Your task to perform on an android device: change keyboard looks Image 0: 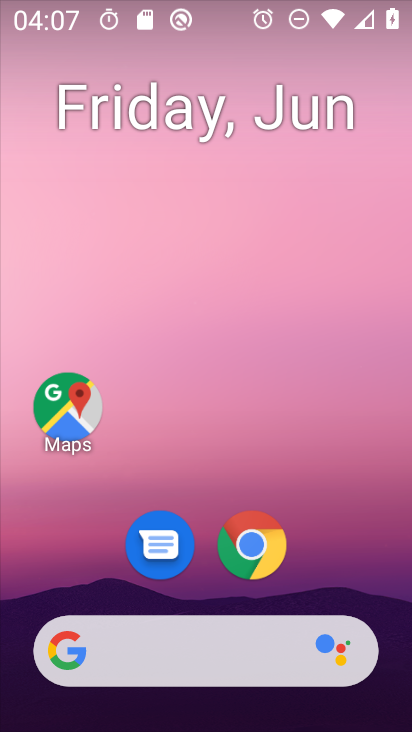
Step 0: drag from (305, 599) to (291, 10)
Your task to perform on an android device: change keyboard looks Image 1: 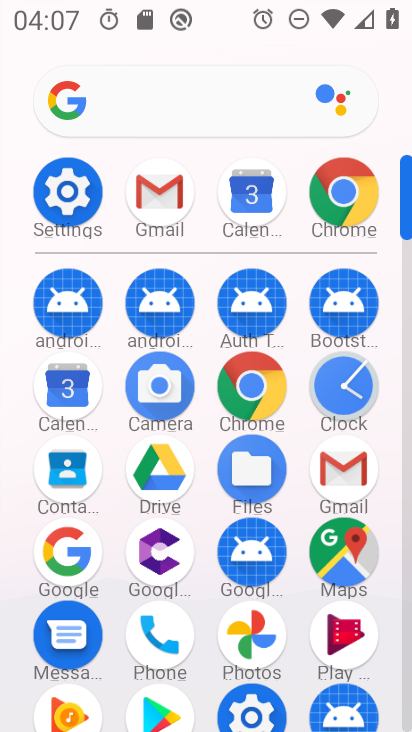
Step 1: click (79, 197)
Your task to perform on an android device: change keyboard looks Image 2: 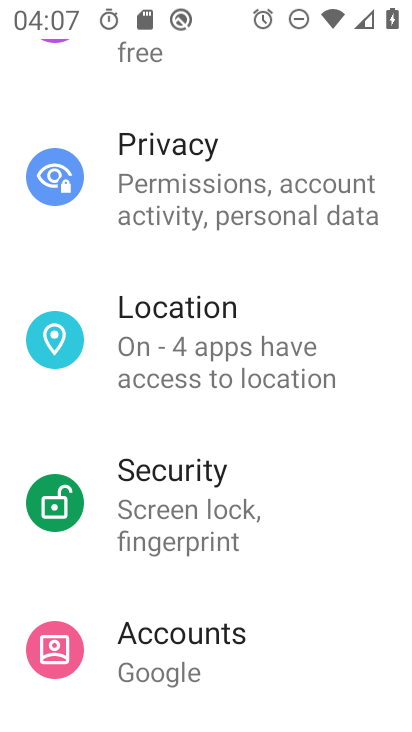
Step 2: drag from (283, 579) to (317, 72)
Your task to perform on an android device: change keyboard looks Image 3: 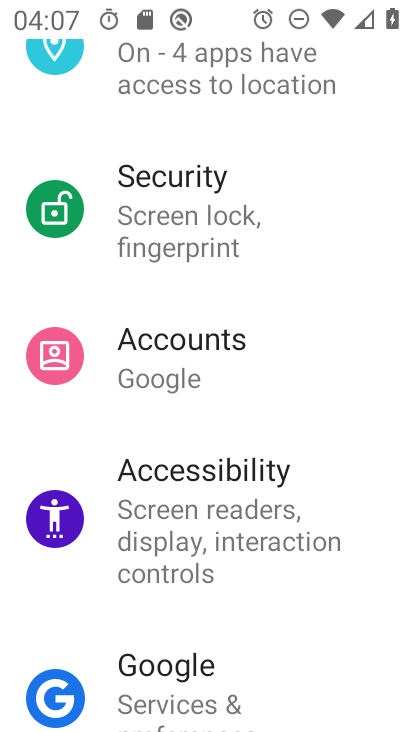
Step 3: drag from (339, 533) to (348, 18)
Your task to perform on an android device: change keyboard looks Image 4: 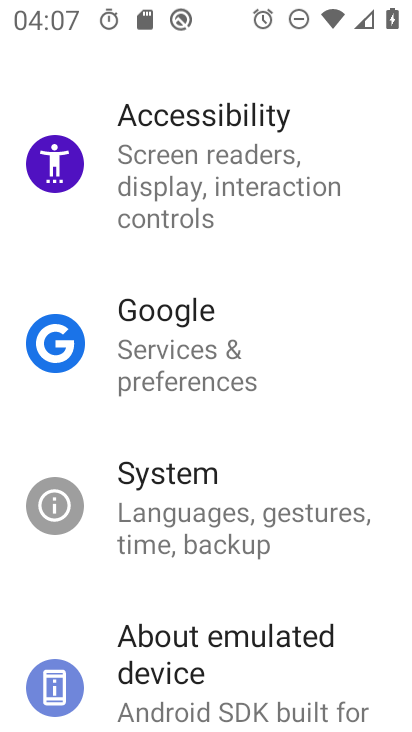
Step 4: click (223, 543)
Your task to perform on an android device: change keyboard looks Image 5: 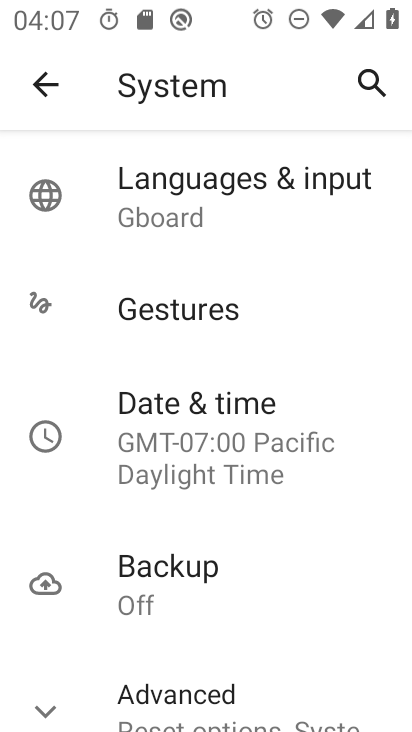
Step 5: click (113, 207)
Your task to perform on an android device: change keyboard looks Image 6: 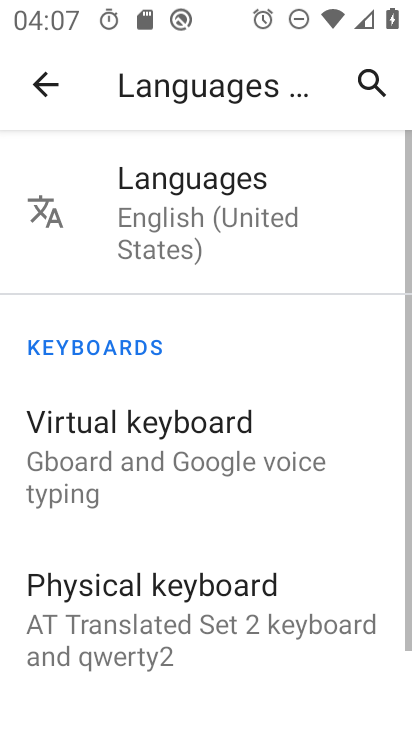
Step 6: click (139, 469)
Your task to perform on an android device: change keyboard looks Image 7: 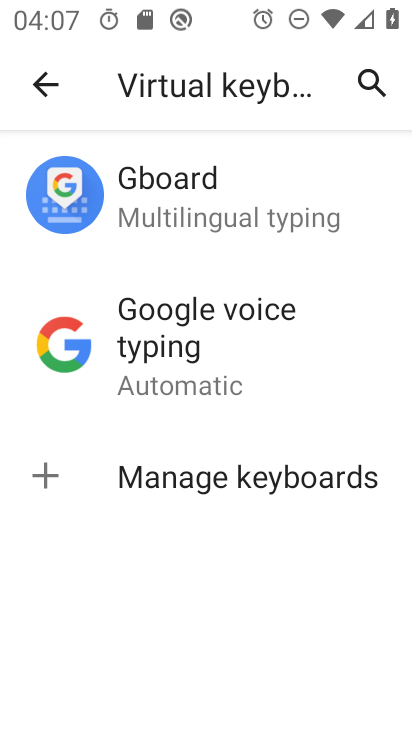
Step 7: click (179, 212)
Your task to perform on an android device: change keyboard looks Image 8: 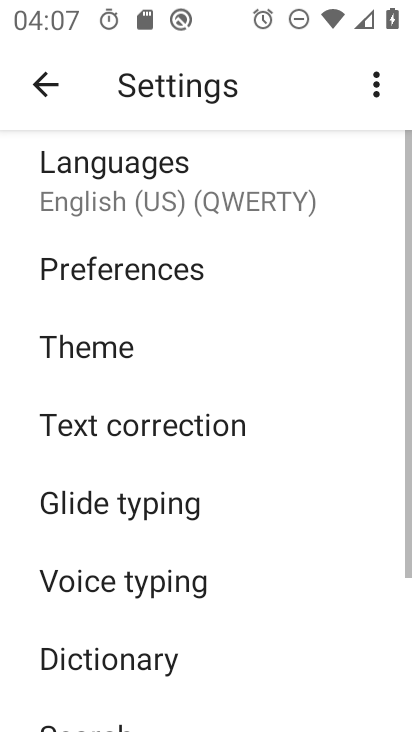
Step 8: click (123, 385)
Your task to perform on an android device: change keyboard looks Image 9: 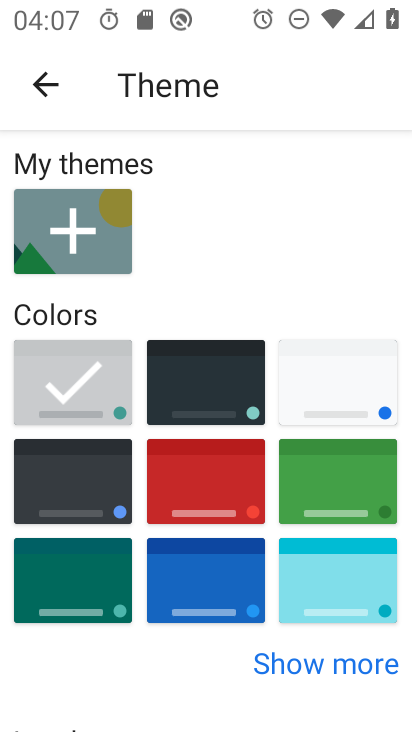
Step 9: click (191, 395)
Your task to perform on an android device: change keyboard looks Image 10: 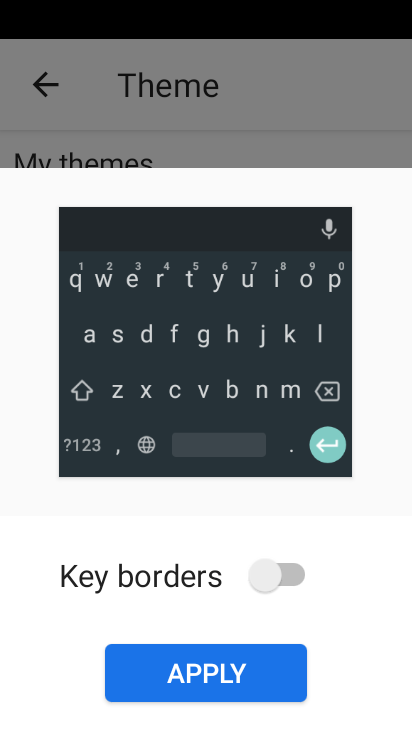
Step 10: click (219, 670)
Your task to perform on an android device: change keyboard looks Image 11: 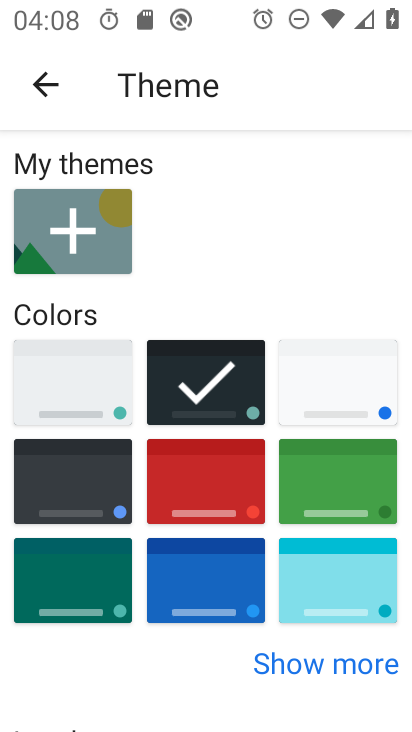
Step 11: task complete